Your task to perform on an android device: change keyboard looks Image 0: 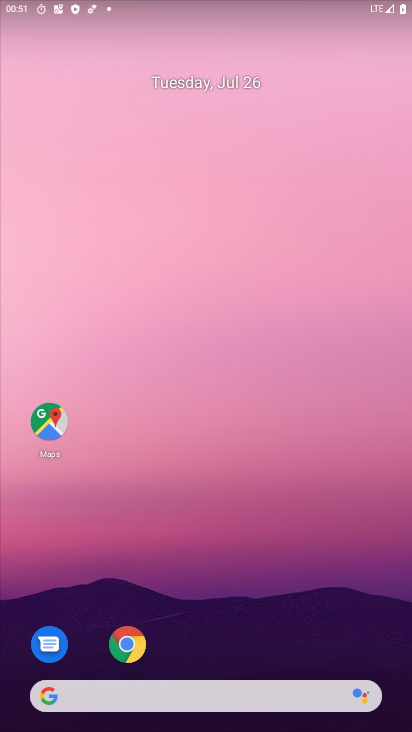
Step 0: drag from (242, 670) to (247, 0)
Your task to perform on an android device: change keyboard looks Image 1: 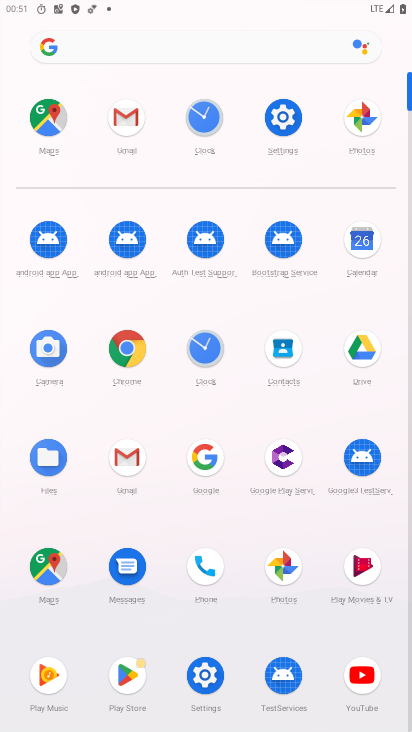
Step 1: click (276, 110)
Your task to perform on an android device: change keyboard looks Image 2: 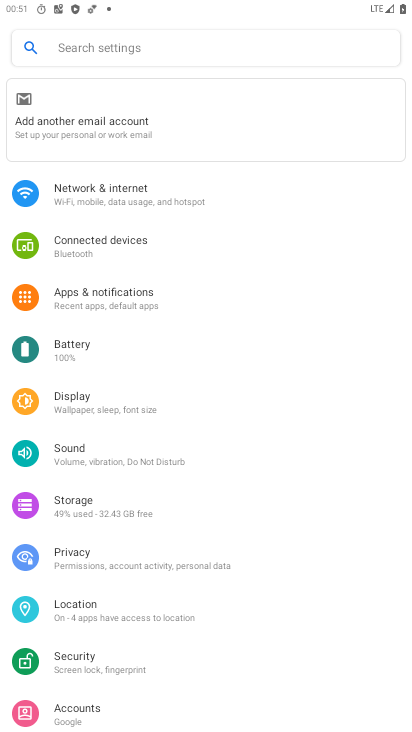
Step 2: drag from (213, 654) to (181, 340)
Your task to perform on an android device: change keyboard looks Image 3: 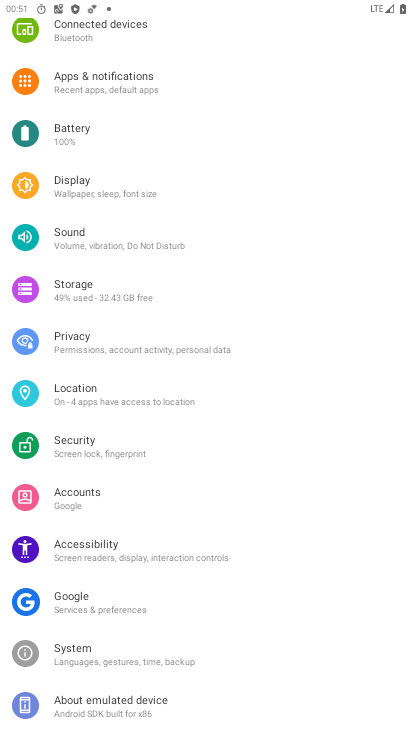
Step 3: click (80, 660)
Your task to perform on an android device: change keyboard looks Image 4: 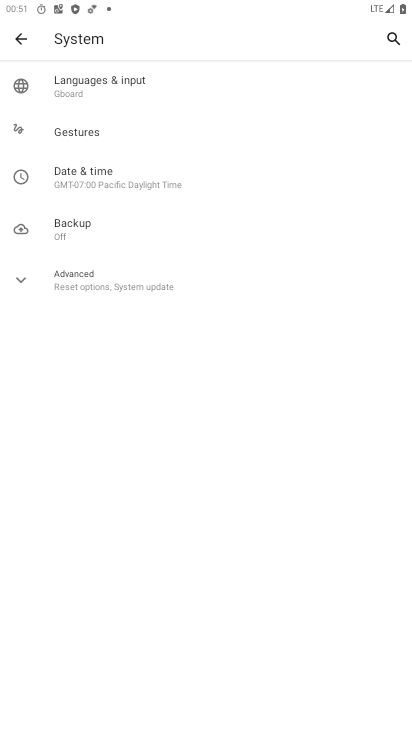
Step 4: click (78, 88)
Your task to perform on an android device: change keyboard looks Image 5: 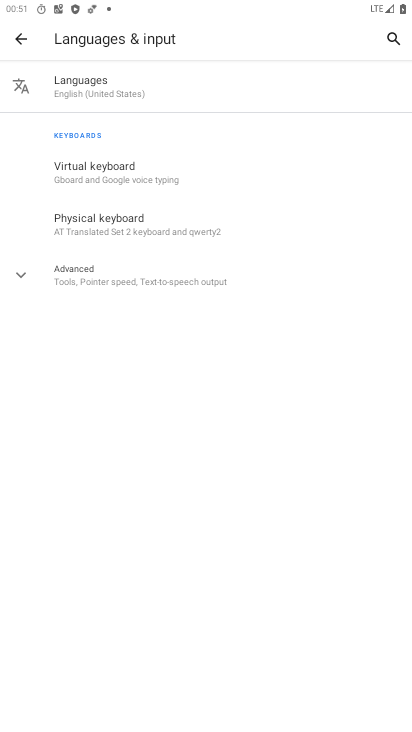
Step 5: click (64, 176)
Your task to perform on an android device: change keyboard looks Image 6: 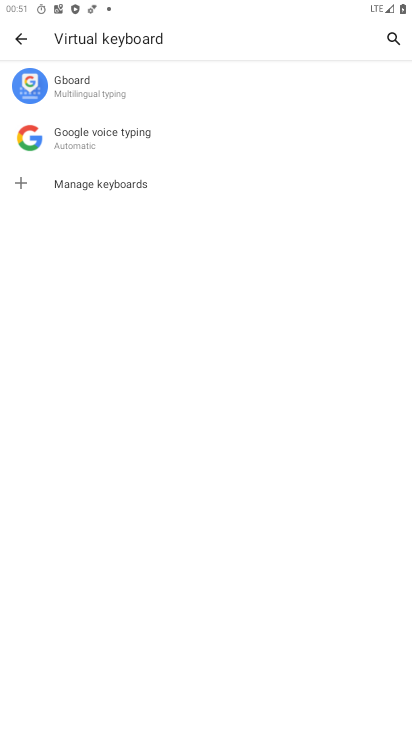
Step 6: click (58, 100)
Your task to perform on an android device: change keyboard looks Image 7: 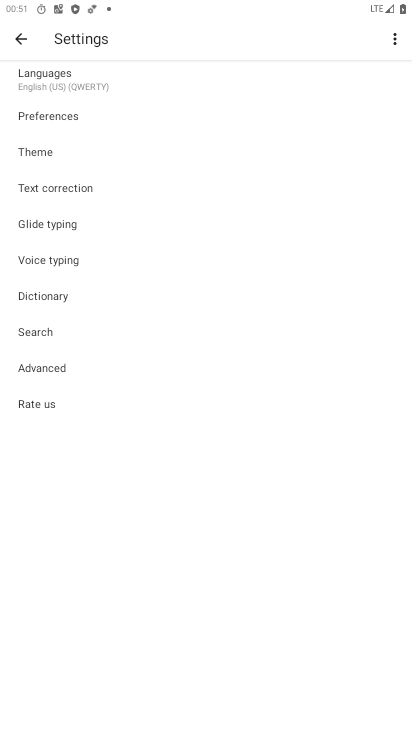
Step 7: click (29, 166)
Your task to perform on an android device: change keyboard looks Image 8: 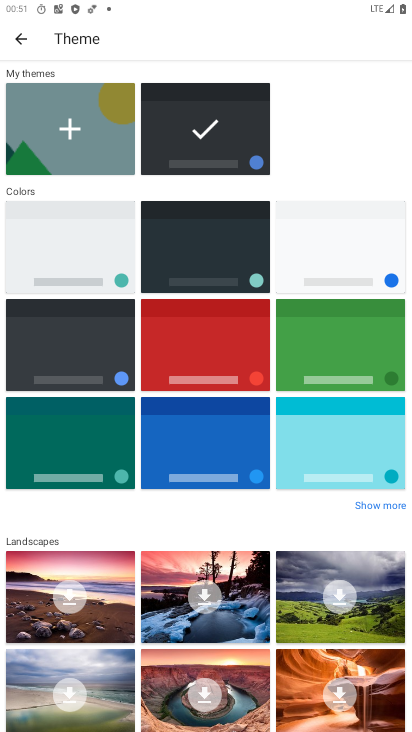
Step 8: click (213, 343)
Your task to perform on an android device: change keyboard looks Image 9: 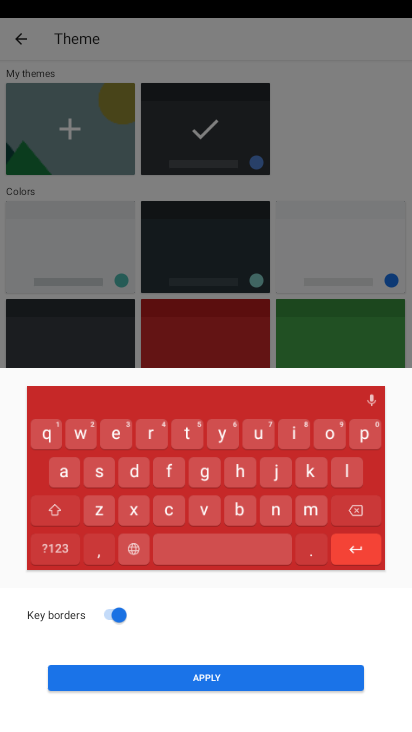
Step 9: click (118, 621)
Your task to perform on an android device: change keyboard looks Image 10: 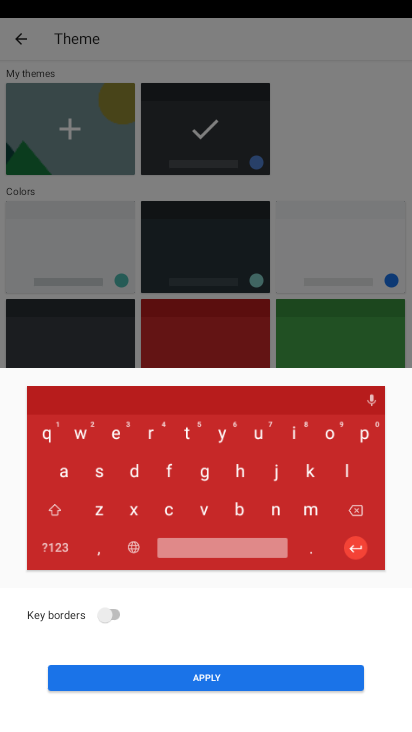
Step 10: click (118, 621)
Your task to perform on an android device: change keyboard looks Image 11: 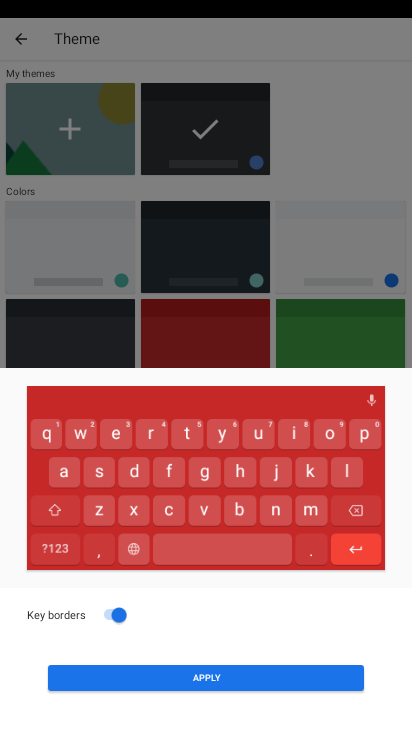
Step 11: click (202, 688)
Your task to perform on an android device: change keyboard looks Image 12: 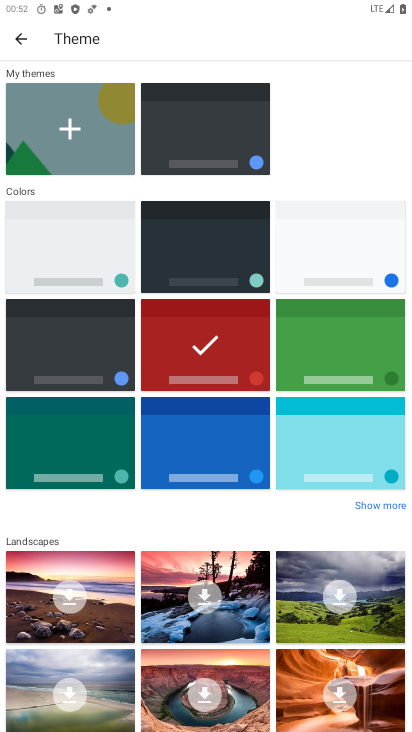
Step 12: task complete